Your task to perform on an android device: Open Google Chrome and open the bookmarks view Image 0: 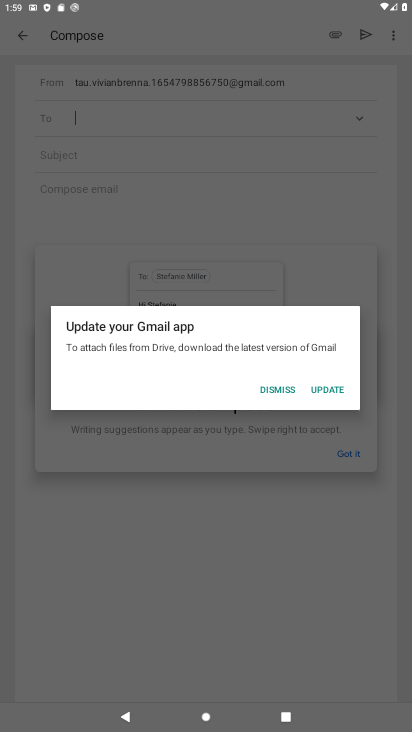
Step 0: press home button
Your task to perform on an android device: Open Google Chrome and open the bookmarks view Image 1: 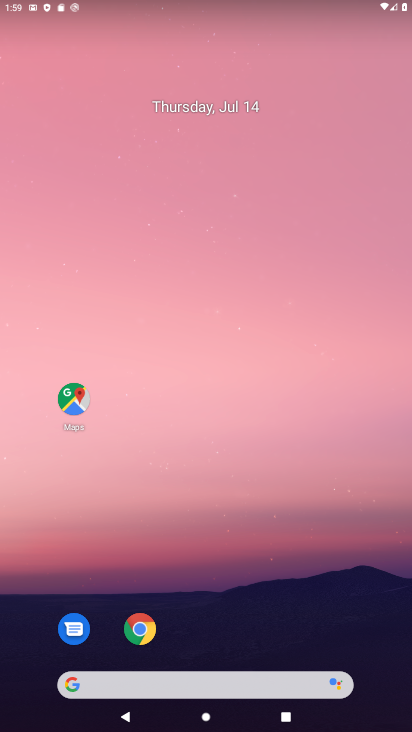
Step 1: click (146, 627)
Your task to perform on an android device: Open Google Chrome and open the bookmarks view Image 2: 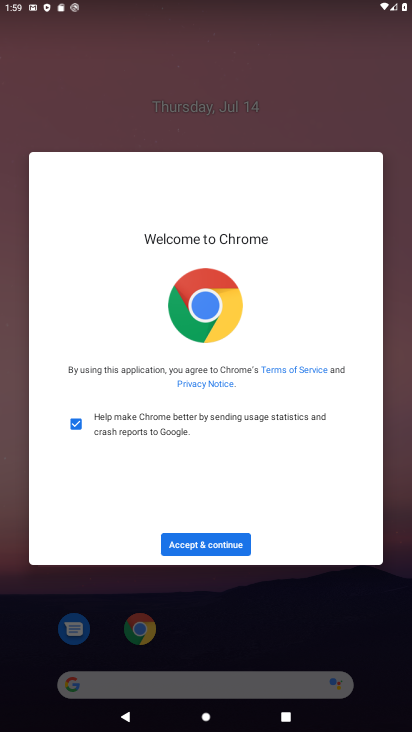
Step 2: click (207, 542)
Your task to perform on an android device: Open Google Chrome and open the bookmarks view Image 3: 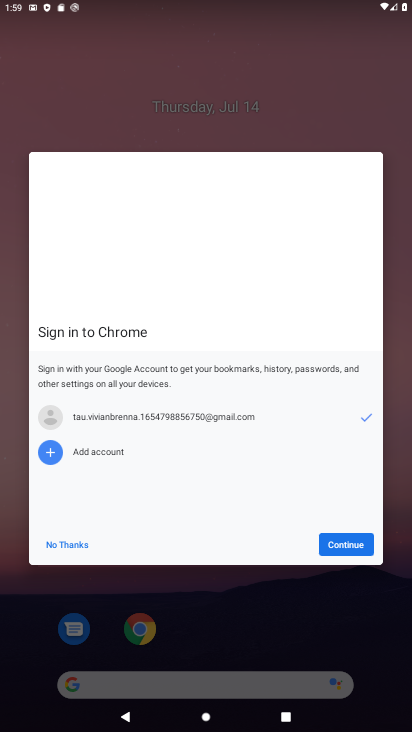
Step 3: click (339, 539)
Your task to perform on an android device: Open Google Chrome and open the bookmarks view Image 4: 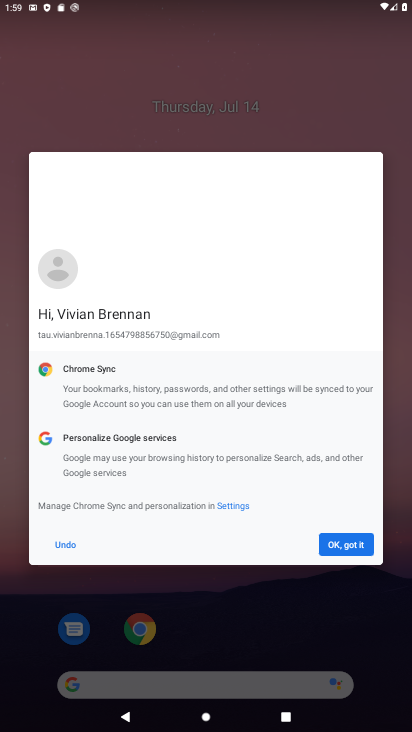
Step 4: click (339, 539)
Your task to perform on an android device: Open Google Chrome and open the bookmarks view Image 5: 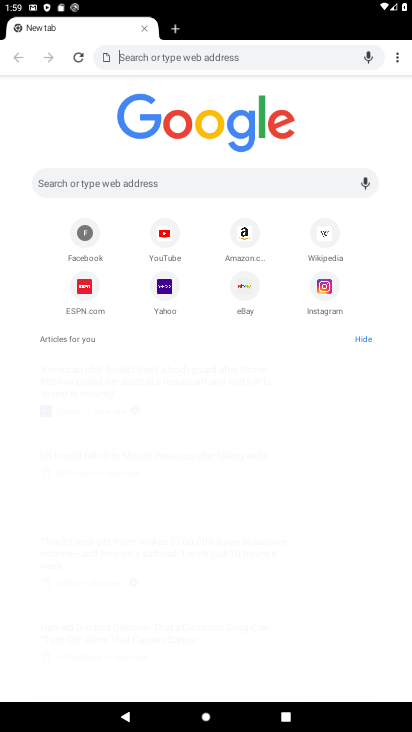
Step 5: click (398, 52)
Your task to perform on an android device: Open Google Chrome and open the bookmarks view Image 6: 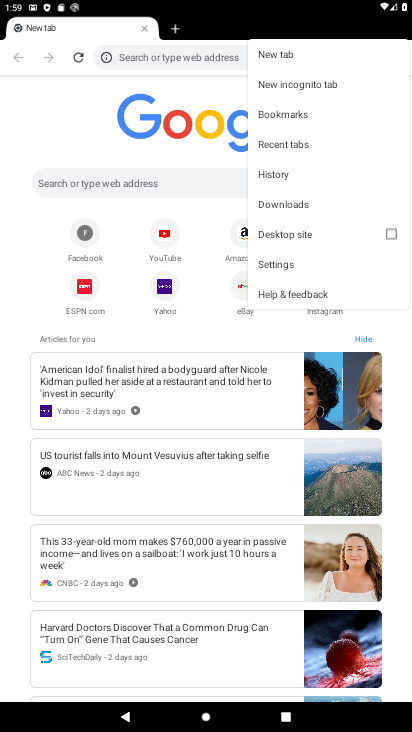
Step 6: click (294, 116)
Your task to perform on an android device: Open Google Chrome and open the bookmarks view Image 7: 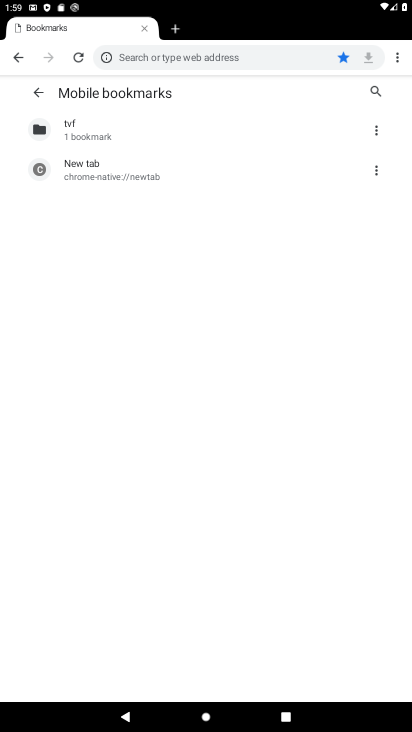
Step 7: task complete